Your task to perform on an android device: What's on my calendar tomorrow? Image 0: 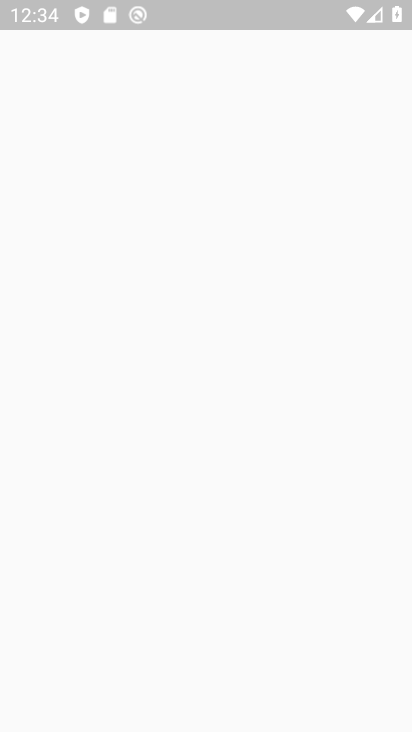
Step 0: press home button
Your task to perform on an android device: What's on my calendar tomorrow? Image 1: 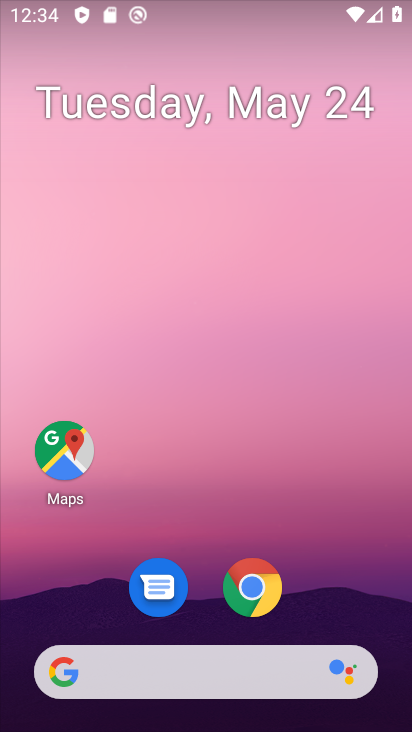
Step 1: drag from (189, 647) to (221, 159)
Your task to perform on an android device: What's on my calendar tomorrow? Image 2: 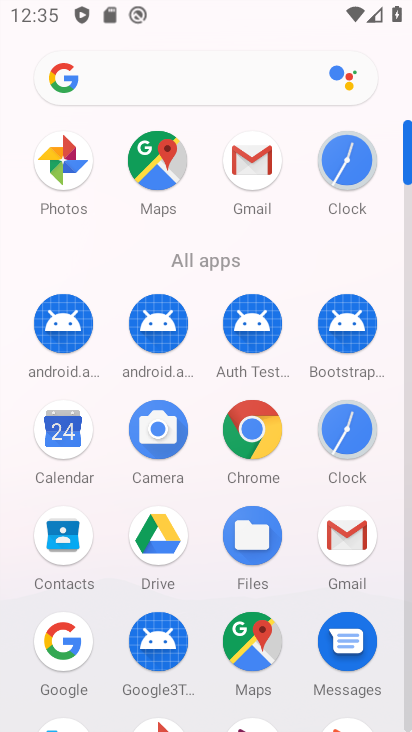
Step 2: click (61, 432)
Your task to perform on an android device: What's on my calendar tomorrow? Image 3: 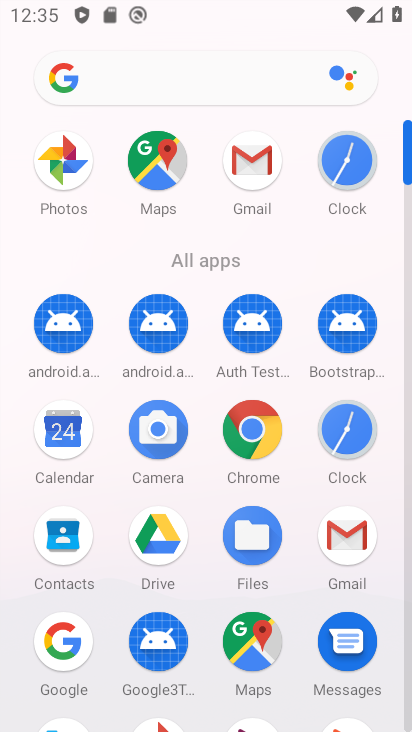
Step 3: click (68, 424)
Your task to perform on an android device: What's on my calendar tomorrow? Image 4: 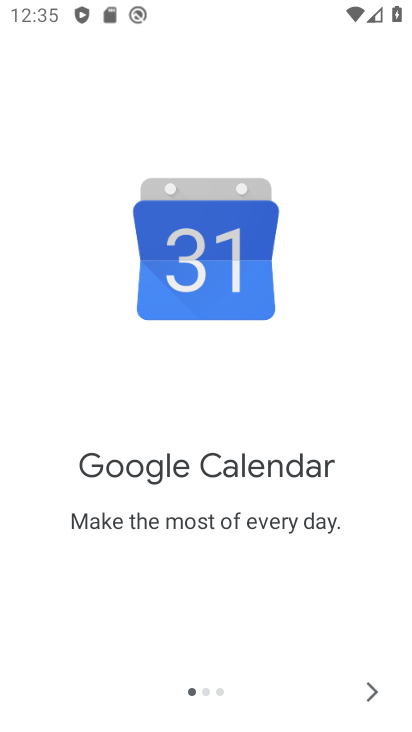
Step 4: click (370, 694)
Your task to perform on an android device: What's on my calendar tomorrow? Image 5: 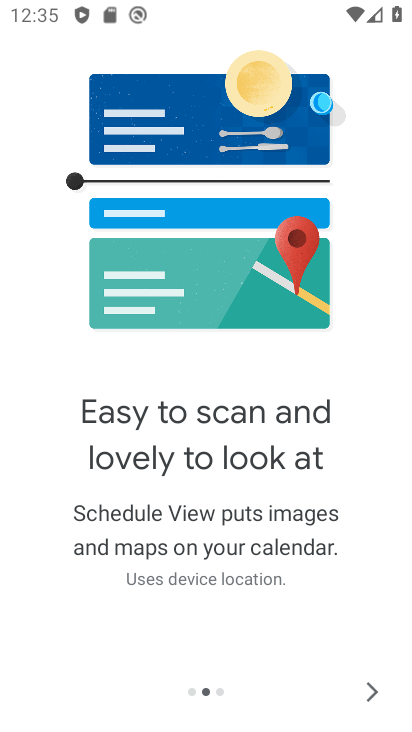
Step 5: click (370, 694)
Your task to perform on an android device: What's on my calendar tomorrow? Image 6: 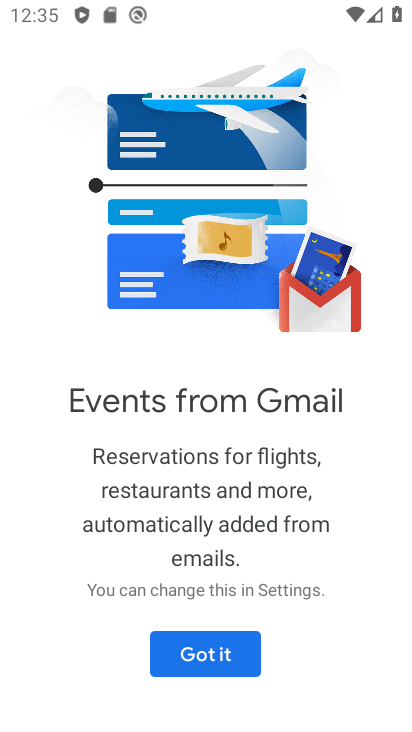
Step 6: click (244, 651)
Your task to perform on an android device: What's on my calendar tomorrow? Image 7: 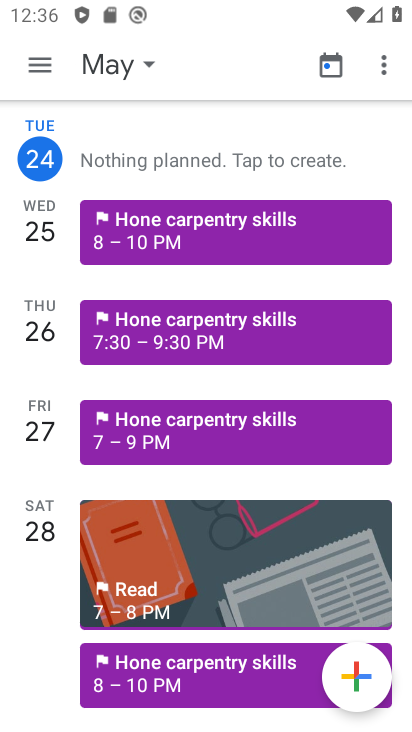
Step 7: task complete